Your task to perform on an android device: Open calendar and show me the third week of next month Image 0: 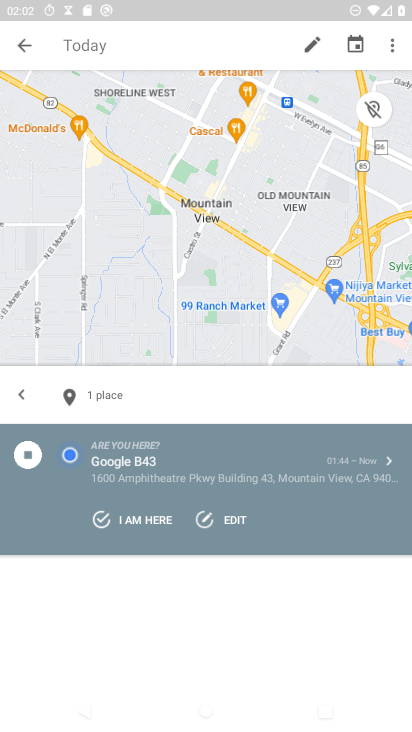
Step 0: press home button
Your task to perform on an android device: Open calendar and show me the third week of next month Image 1: 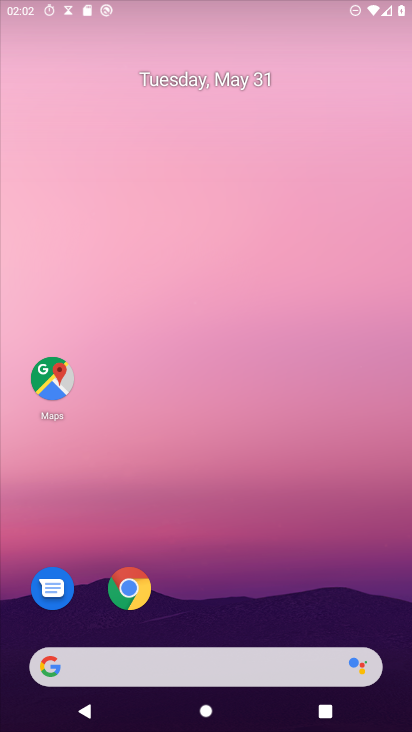
Step 1: drag from (243, 642) to (250, 0)
Your task to perform on an android device: Open calendar and show me the third week of next month Image 2: 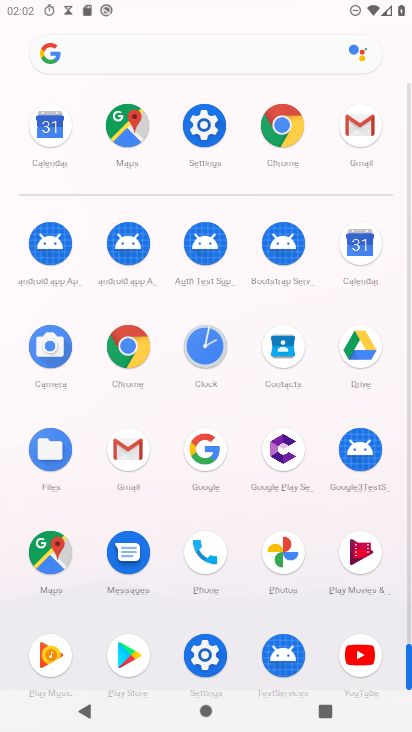
Step 2: click (370, 245)
Your task to perform on an android device: Open calendar and show me the third week of next month Image 3: 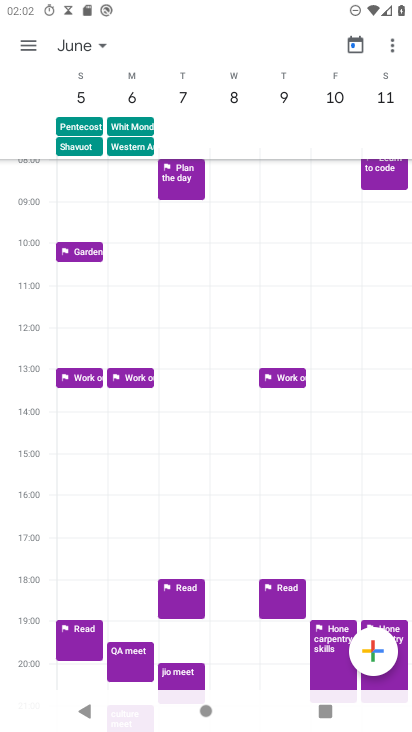
Step 3: click (100, 49)
Your task to perform on an android device: Open calendar and show me the third week of next month Image 4: 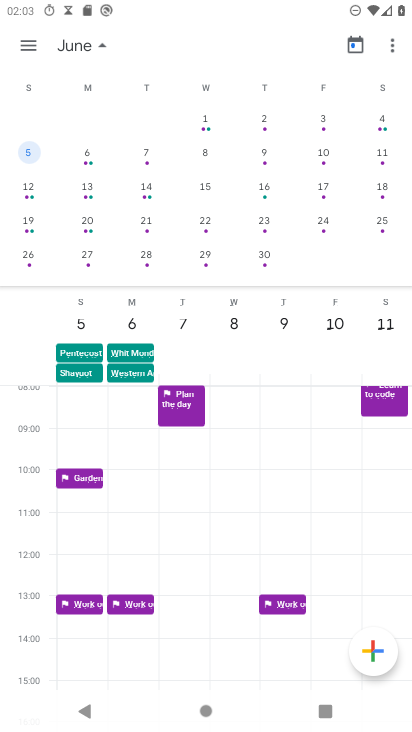
Step 4: click (261, 193)
Your task to perform on an android device: Open calendar and show me the third week of next month Image 5: 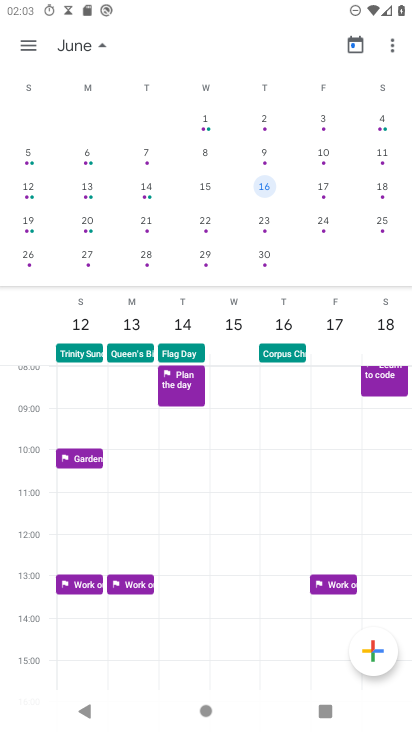
Step 5: task complete